Your task to perform on an android device: change notification settings in the gmail app Image 0: 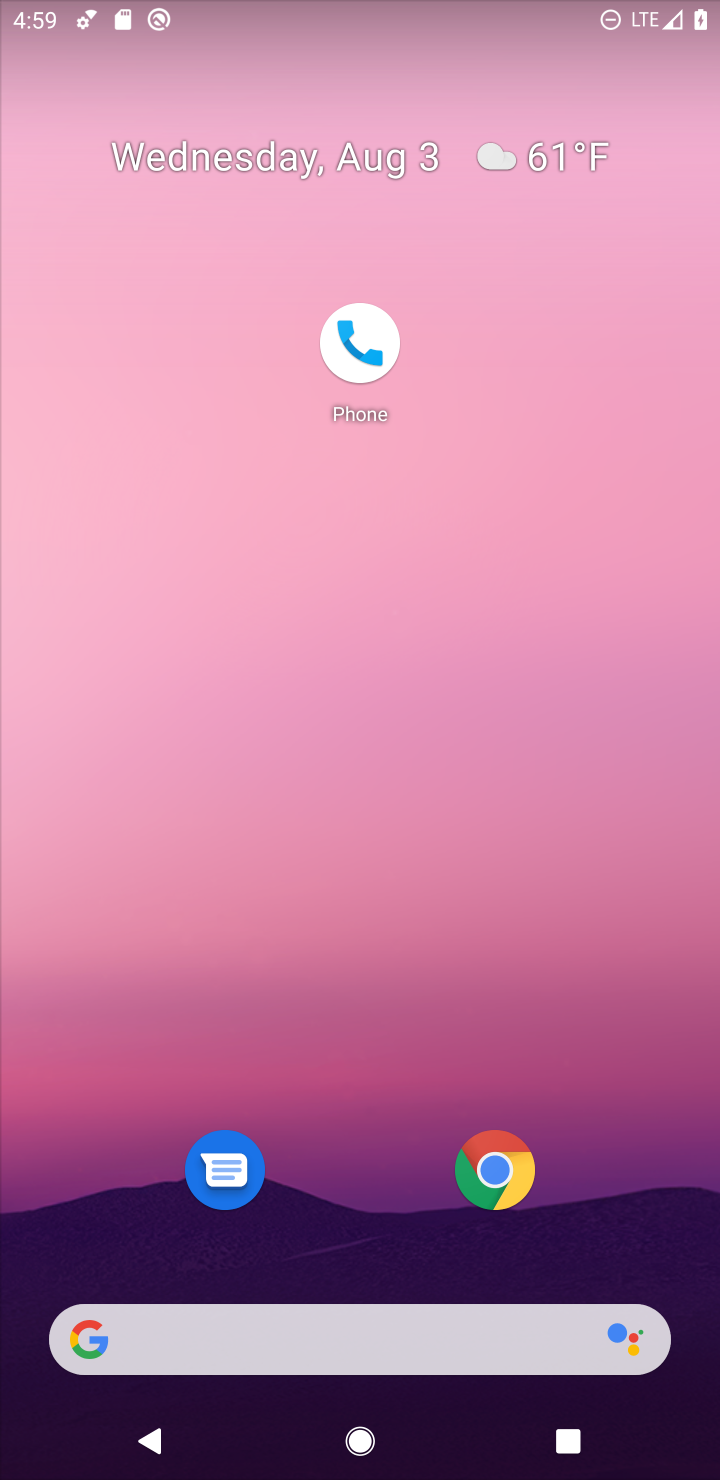
Step 0: drag from (360, 1100) to (353, 9)
Your task to perform on an android device: change notification settings in the gmail app Image 1: 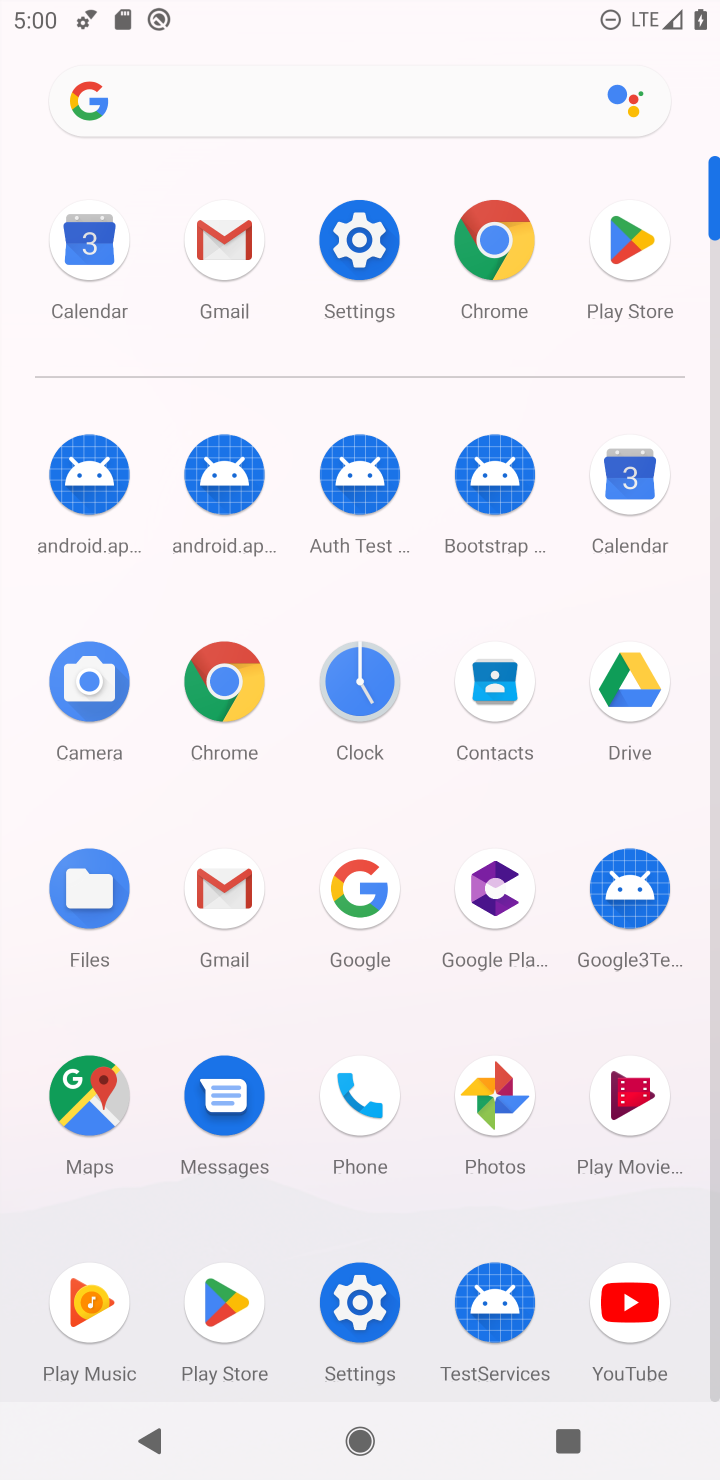
Step 1: click (221, 900)
Your task to perform on an android device: change notification settings in the gmail app Image 2: 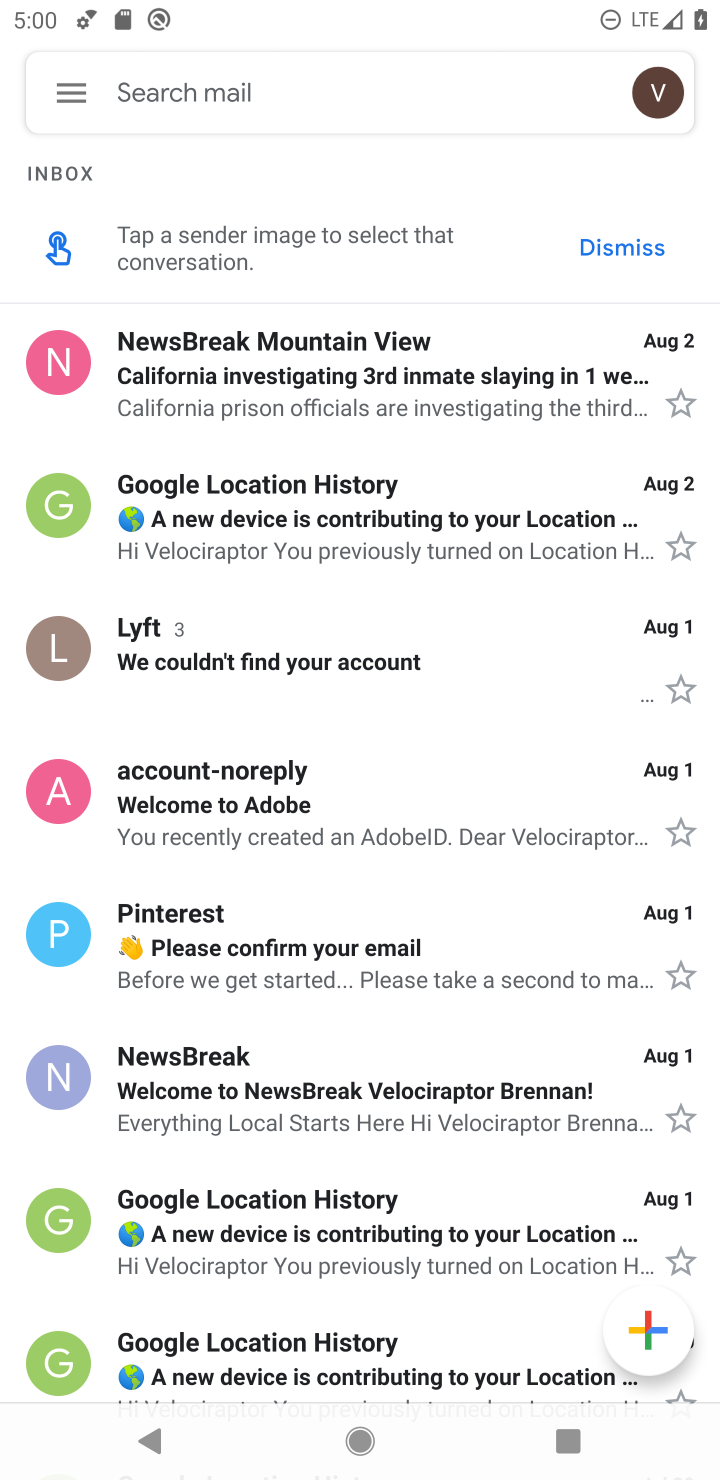
Step 2: click (60, 97)
Your task to perform on an android device: change notification settings in the gmail app Image 3: 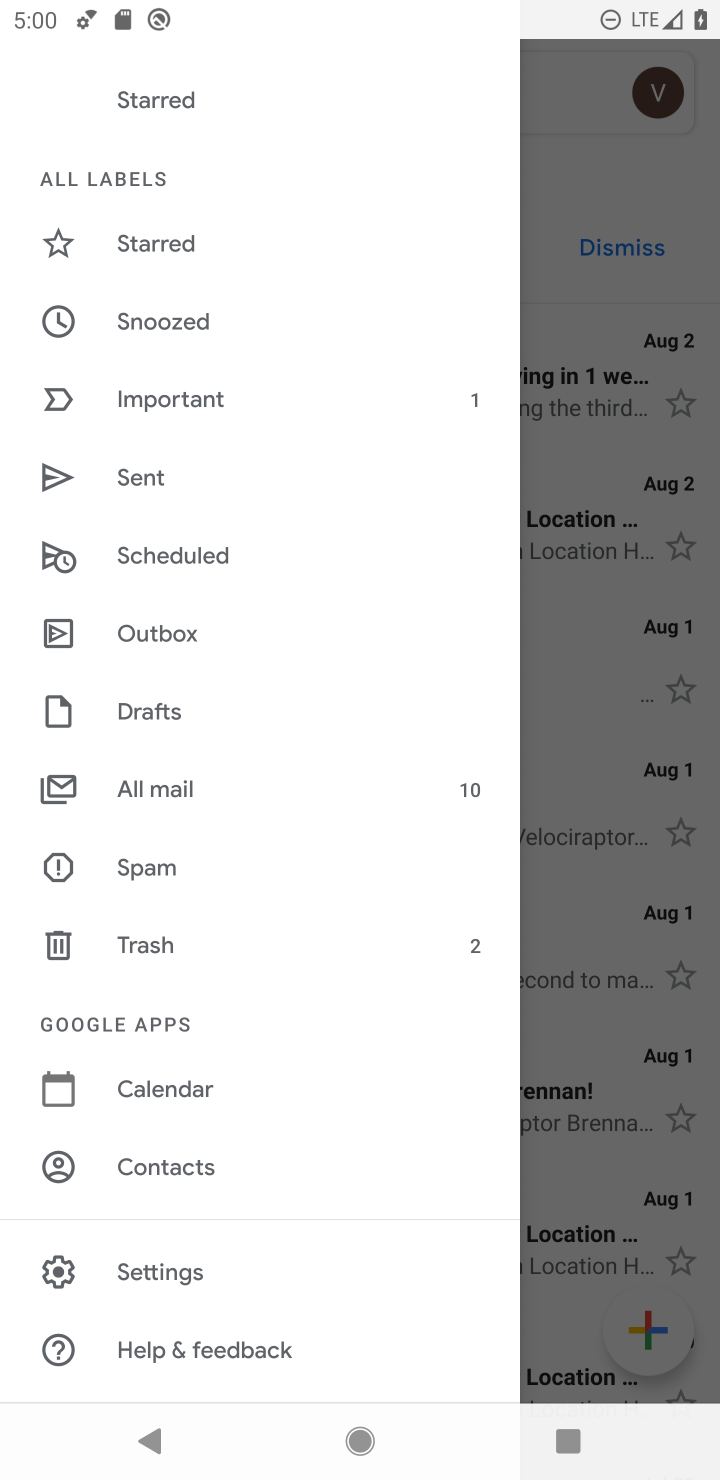
Step 3: click (137, 1266)
Your task to perform on an android device: change notification settings in the gmail app Image 4: 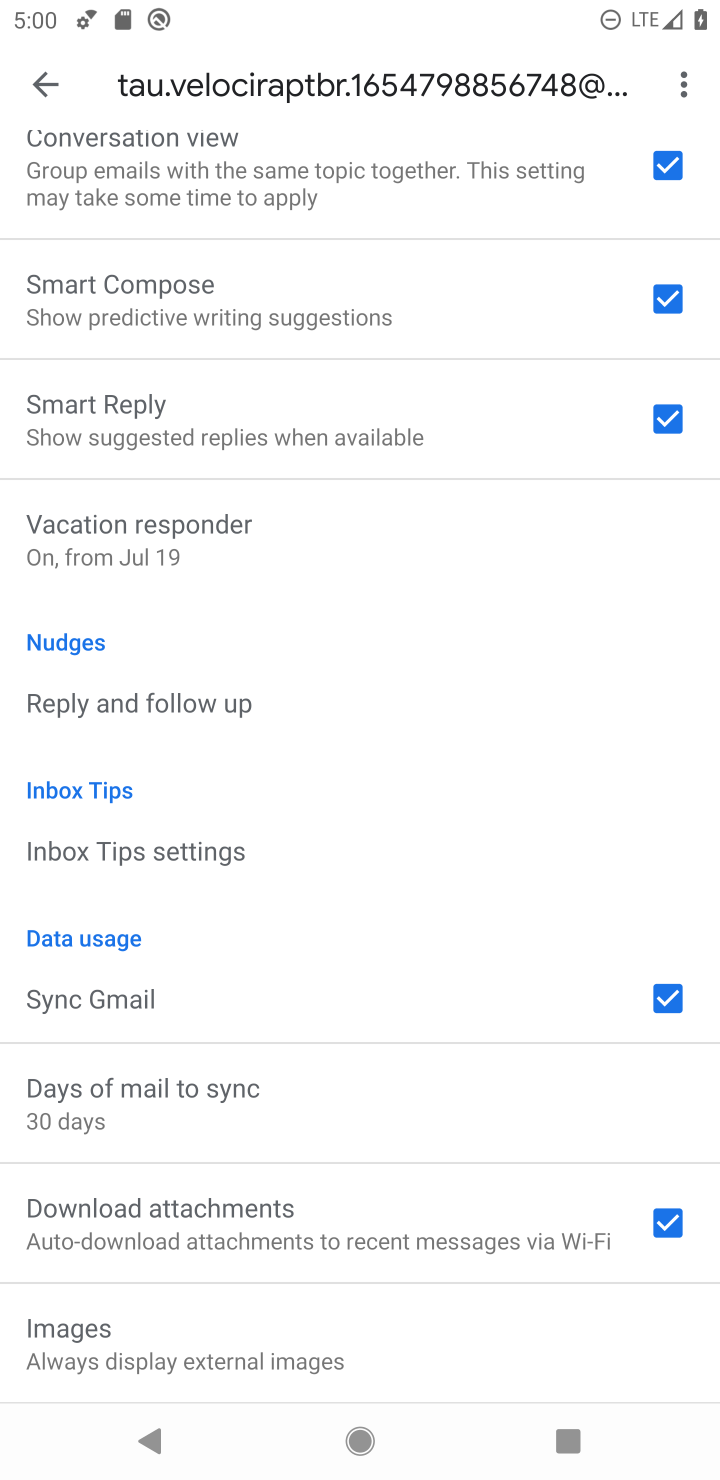
Step 4: drag from (220, 318) to (220, 785)
Your task to perform on an android device: change notification settings in the gmail app Image 5: 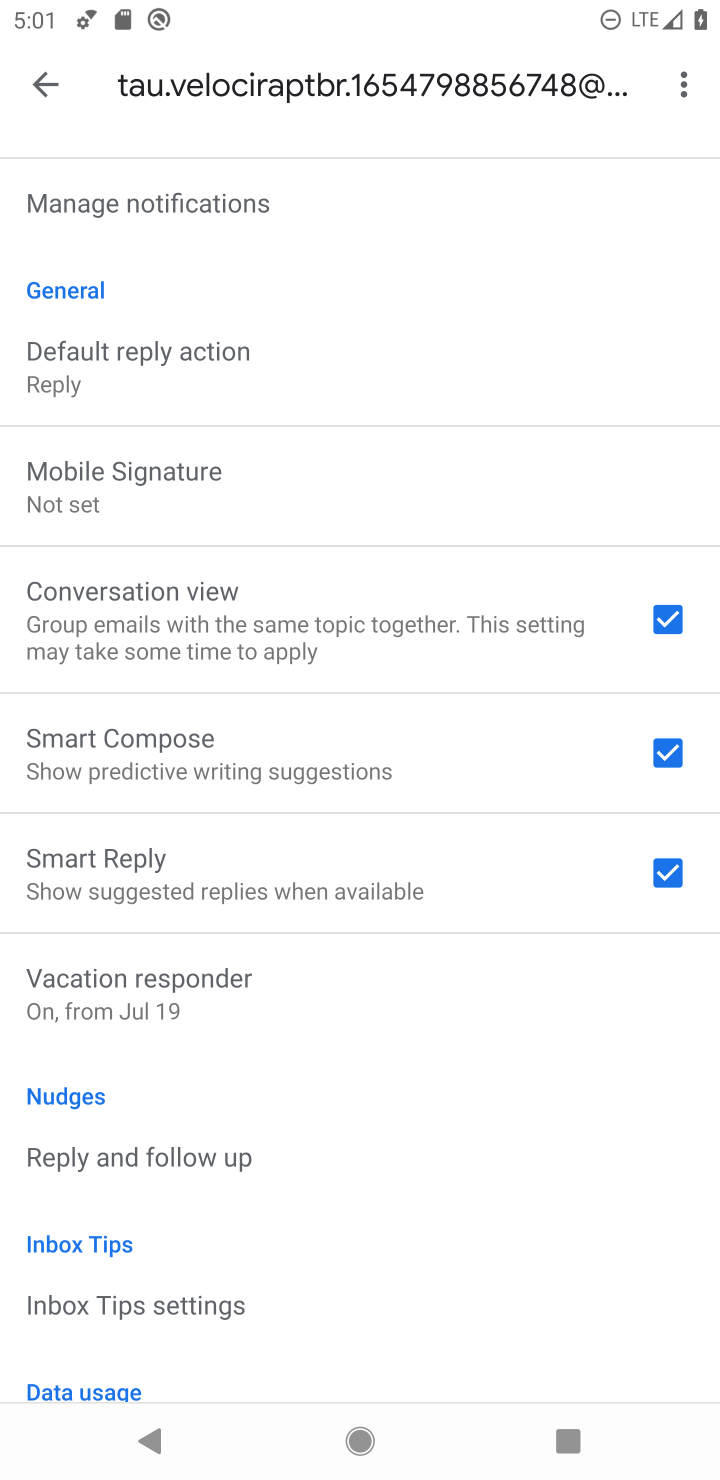
Step 5: click (186, 199)
Your task to perform on an android device: change notification settings in the gmail app Image 6: 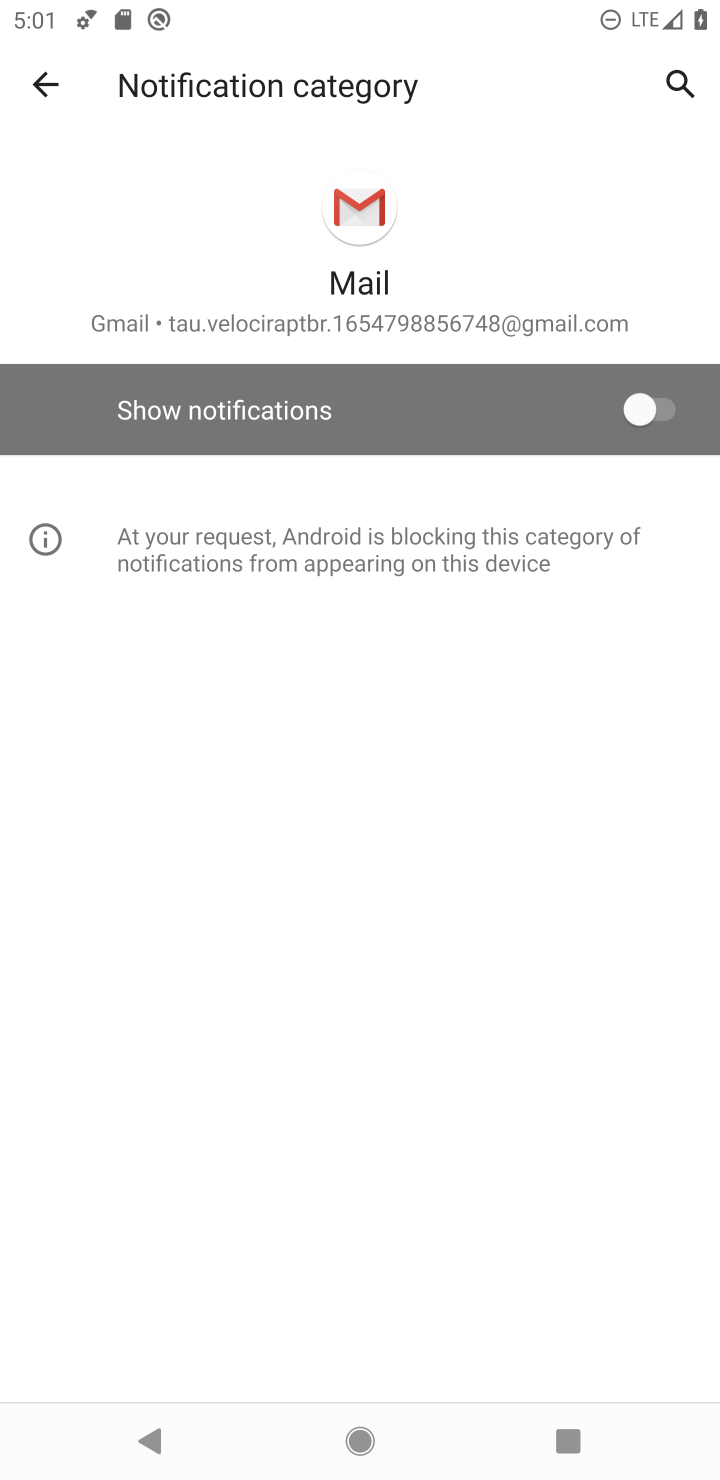
Step 6: click (661, 399)
Your task to perform on an android device: change notification settings in the gmail app Image 7: 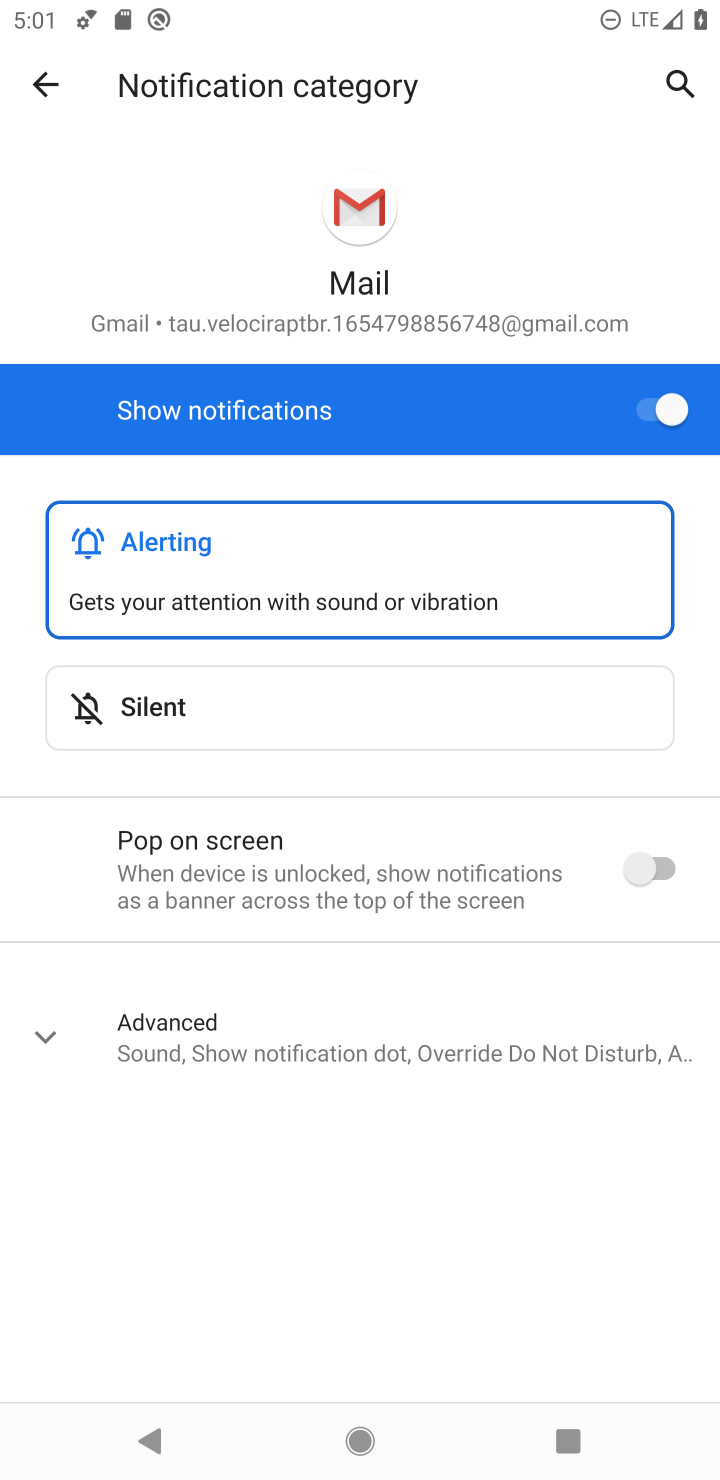
Step 7: task complete